Your task to perform on an android device: Open settings Image 0: 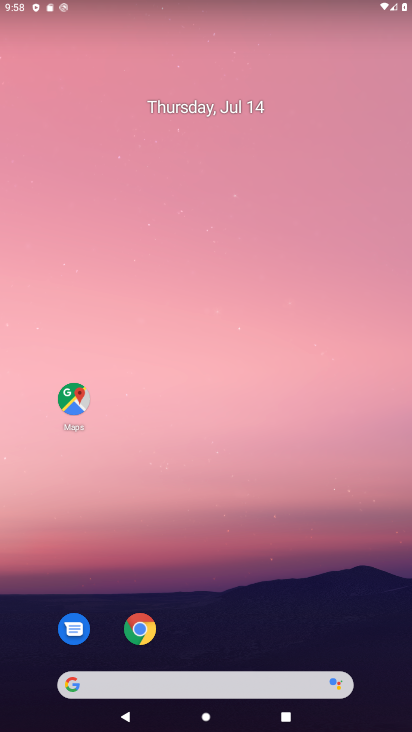
Step 0: drag from (262, 602) to (274, 72)
Your task to perform on an android device: Open settings Image 1: 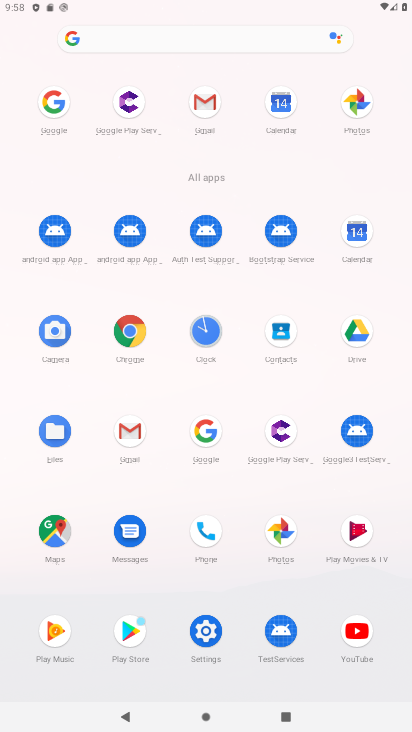
Step 1: click (211, 638)
Your task to perform on an android device: Open settings Image 2: 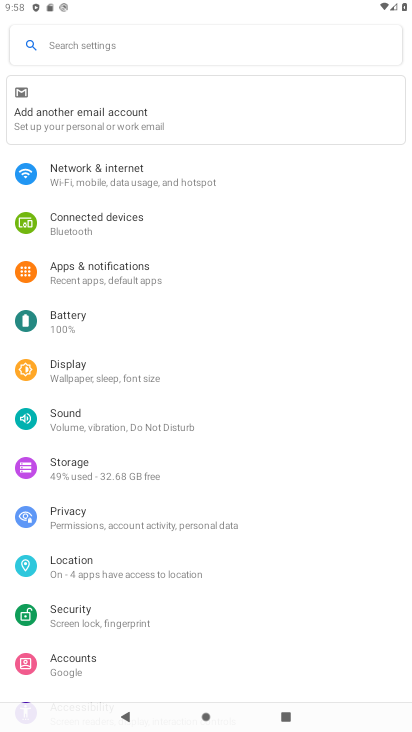
Step 2: task complete